Your task to perform on an android device: turn on notifications settings in the gmail app Image 0: 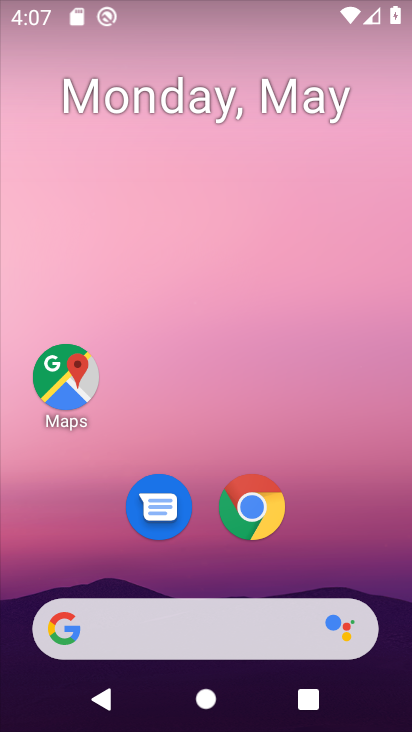
Step 0: drag from (335, 473) to (303, 172)
Your task to perform on an android device: turn on notifications settings in the gmail app Image 1: 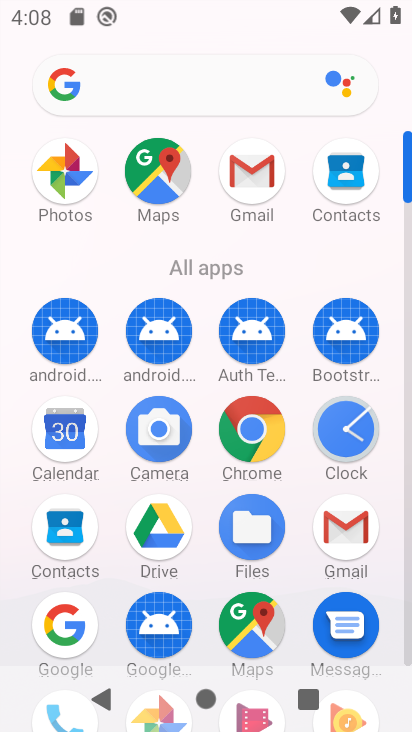
Step 1: click (407, 602)
Your task to perform on an android device: turn on notifications settings in the gmail app Image 2: 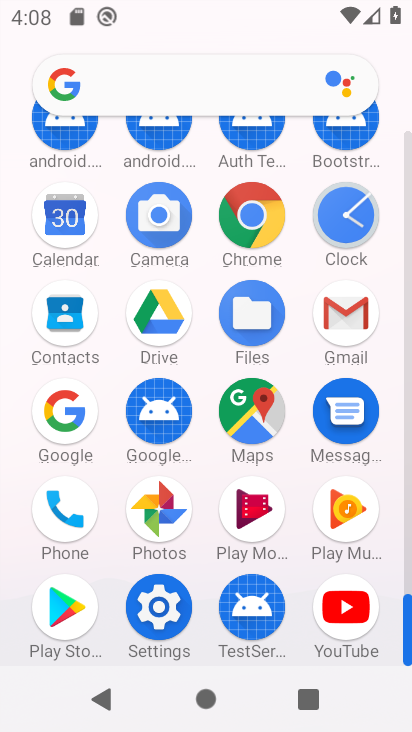
Step 2: click (317, 328)
Your task to perform on an android device: turn on notifications settings in the gmail app Image 3: 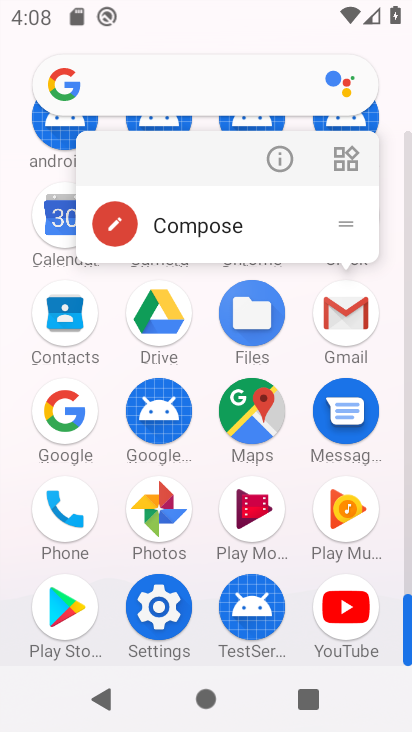
Step 3: click (277, 152)
Your task to perform on an android device: turn on notifications settings in the gmail app Image 4: 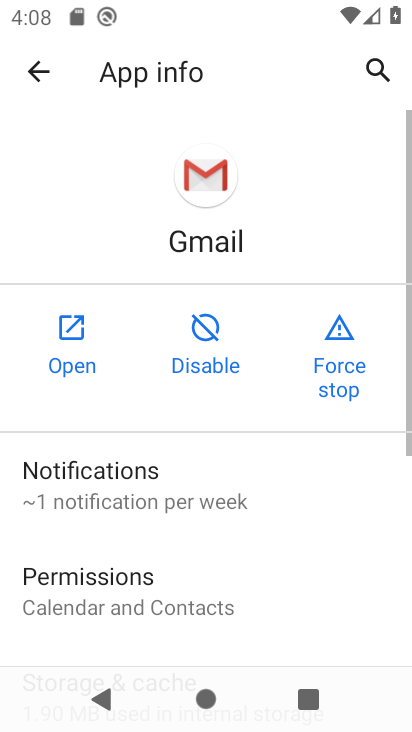
Step 4: click (137, 496)
Your task to perform on an android device: turn on notifications settings in the gmail app Image 5: 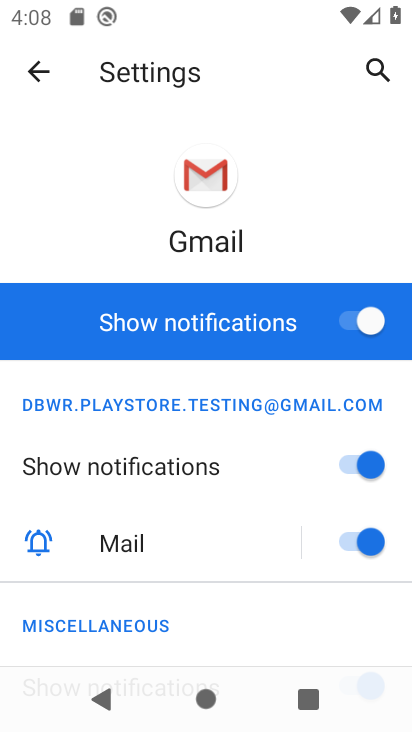
Step 5: task complete